Your task to perform on an android device: Open battery settings Image 0: 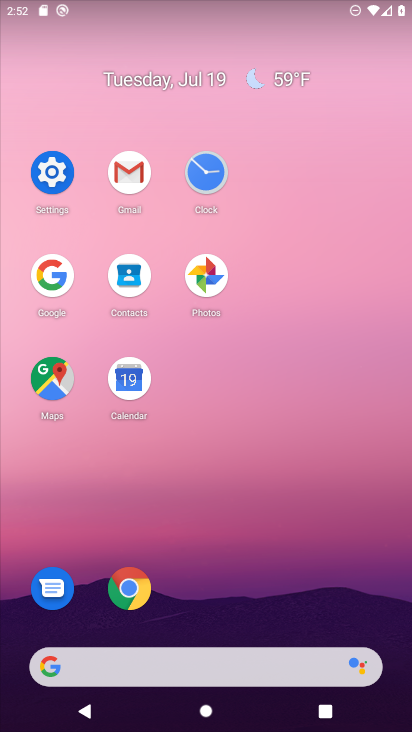
Step 0: click (63, 178)
Your task to perform on an android device: Open battery settings Image 1: 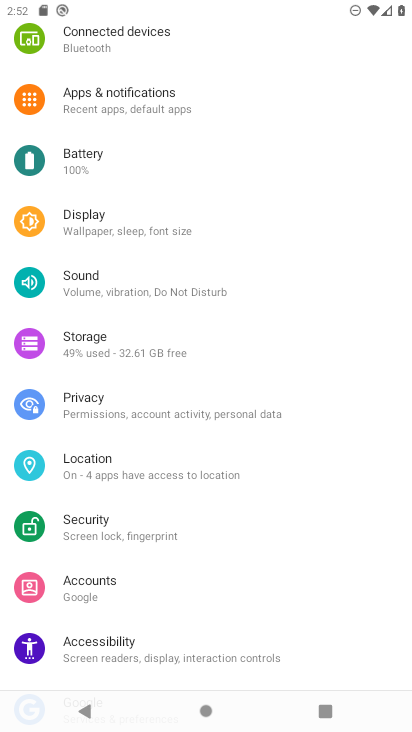
Step 1: click (139, 171)
Your task to perform on an android device: Open battery settings Image 2: 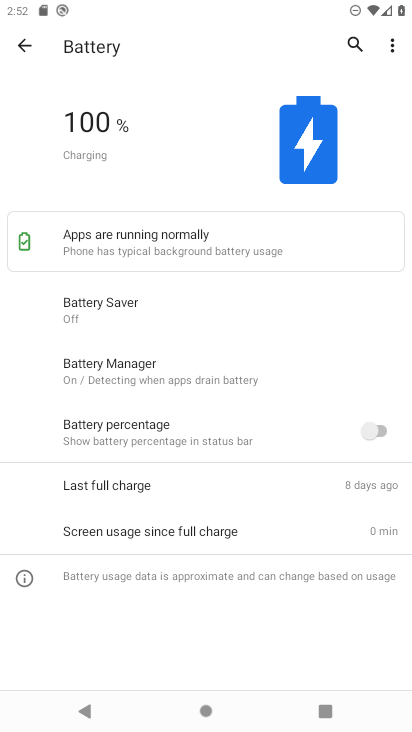
Step 2: task complete